Your task to perform on an android device: toggle notifications settings in the gmail app Image 0: 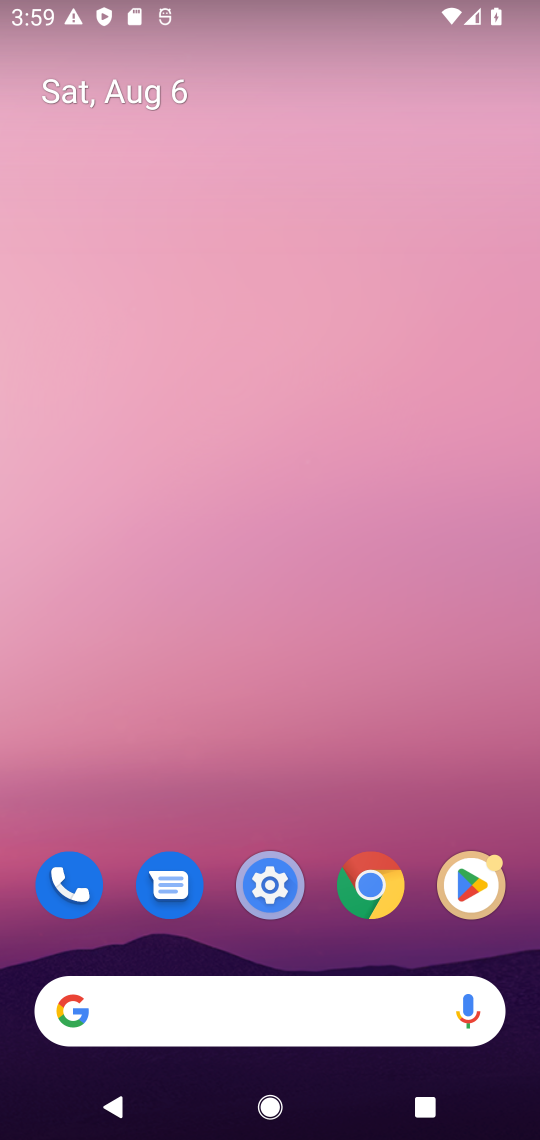
Step 0: drag from (271, 778) to (244, 318)
Your task to perform on an android device: toggle notifications settings in the gmail app Image 1: 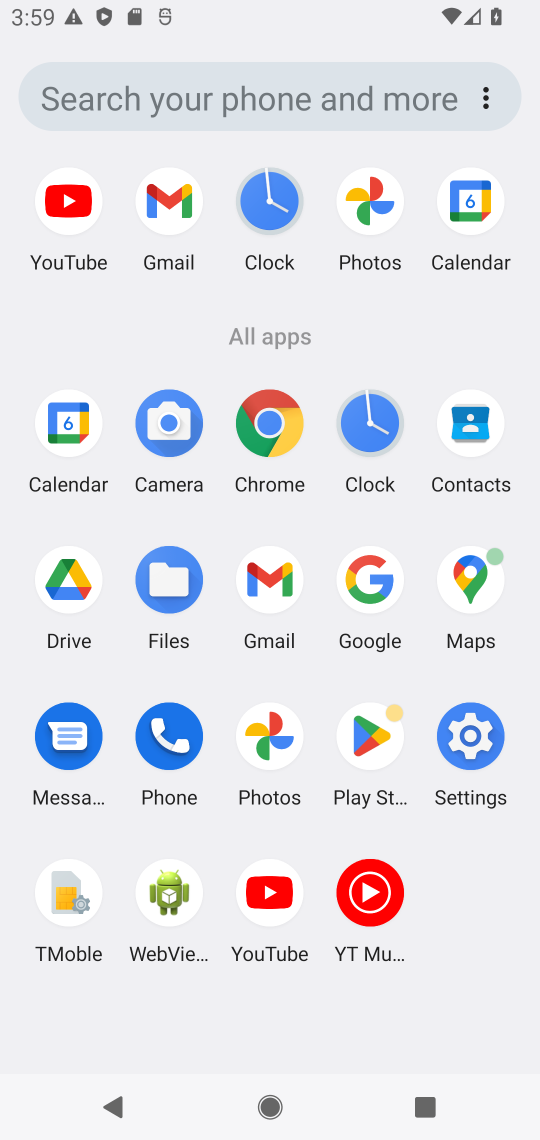
Step 1: click (257, 575)
Your task to perform on an android device: toggle notifications settings in the gmail app Image 2: 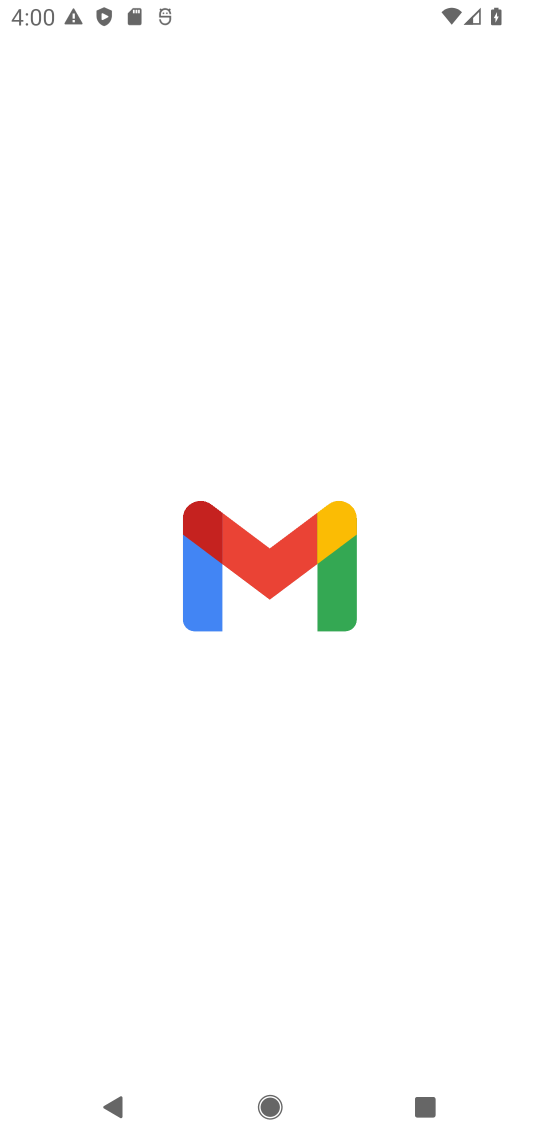
Step 2: press home button
Your task to perform on an android device: toggle notifications settings in the gmail app Image 3: 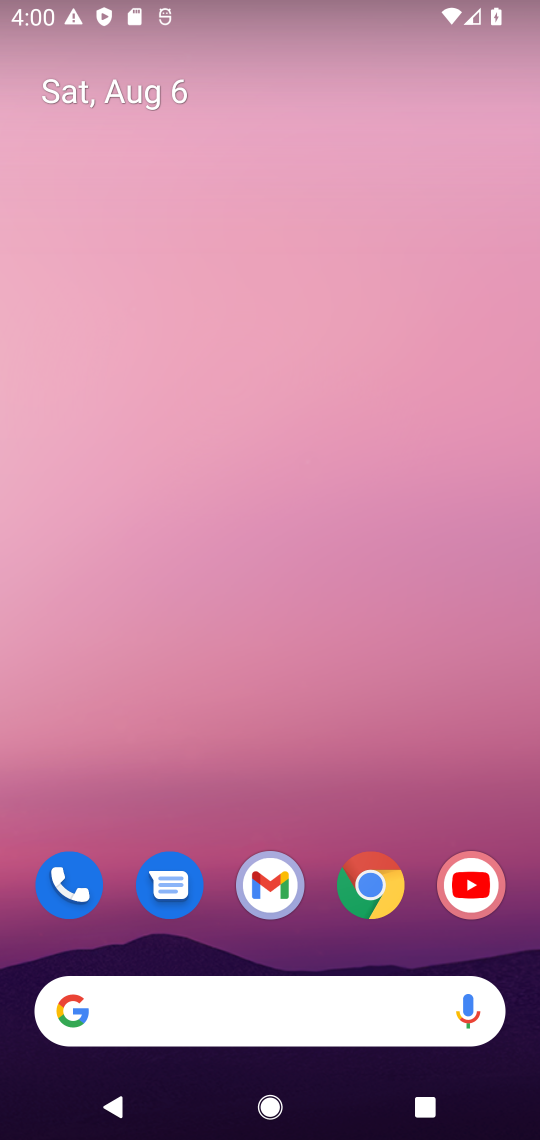
Step 3: drag from (336, 789) to (352, 311)
Your task to perform on an android device: toggle notifications settings in the gmail app Image 4: 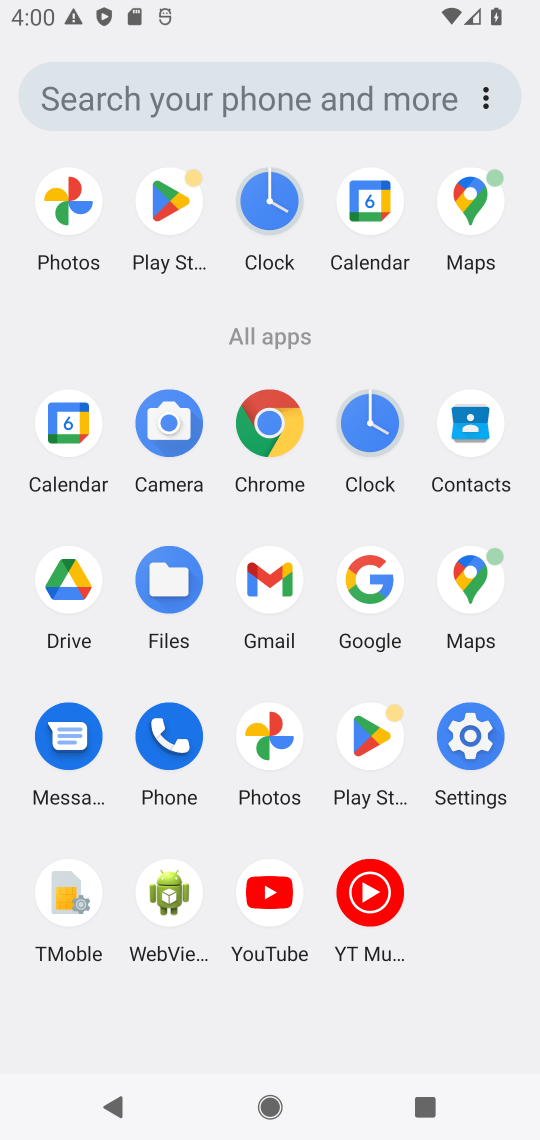
Step 4: click (266, 591)
Your task to perform on an android device: toggle notifications settings in the gmail app Image 5: 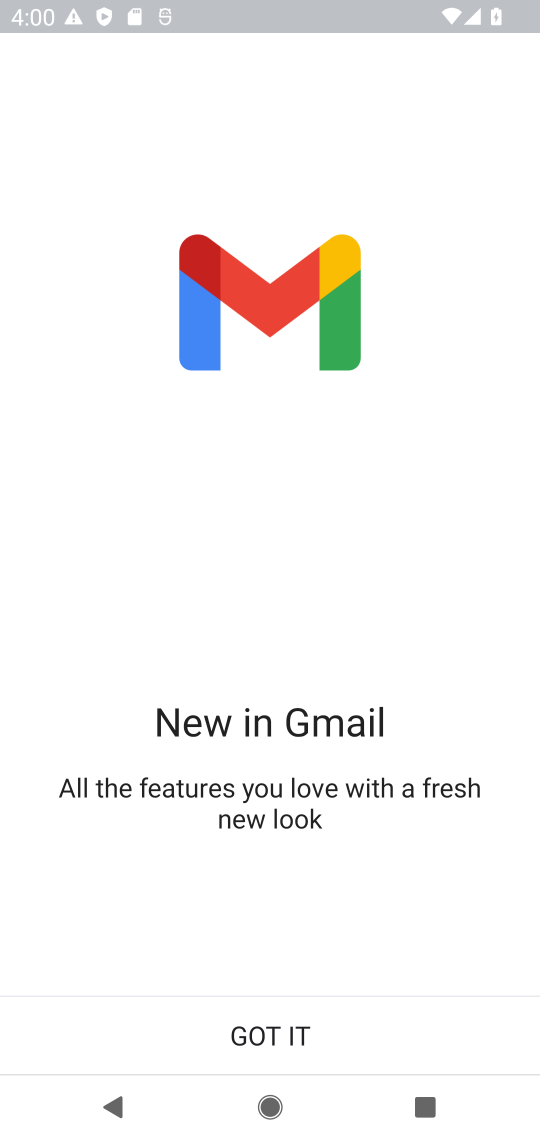
Step 5: click (286, 1035)
Your task to perform on an android device: toggle notifications settings in the gmail app Image 6: 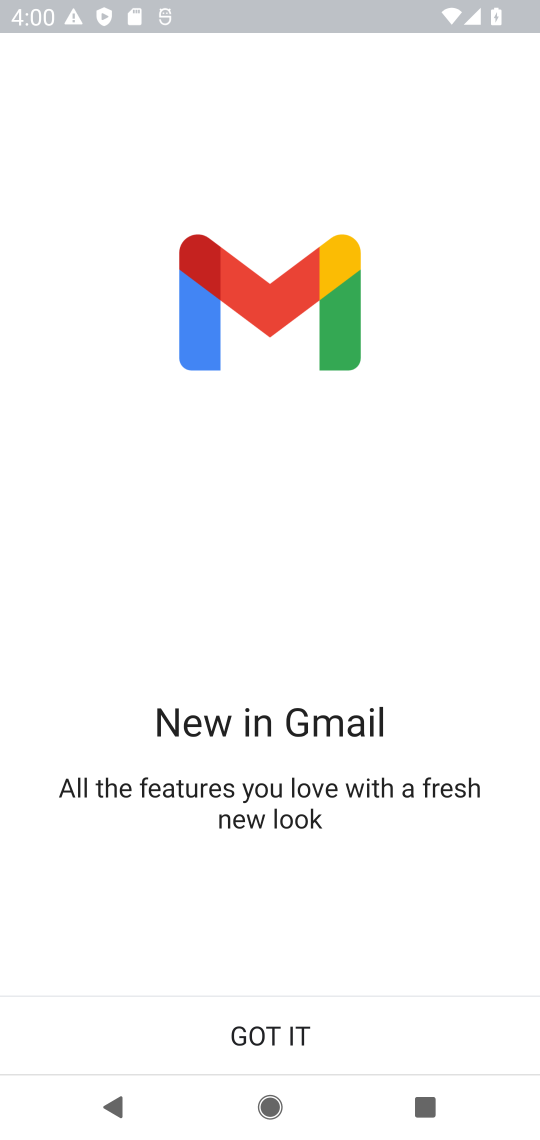
Step 6: click (286, 1035)
Your task to perform on an android device: toggle notifications settings in the gmail app Image 7: 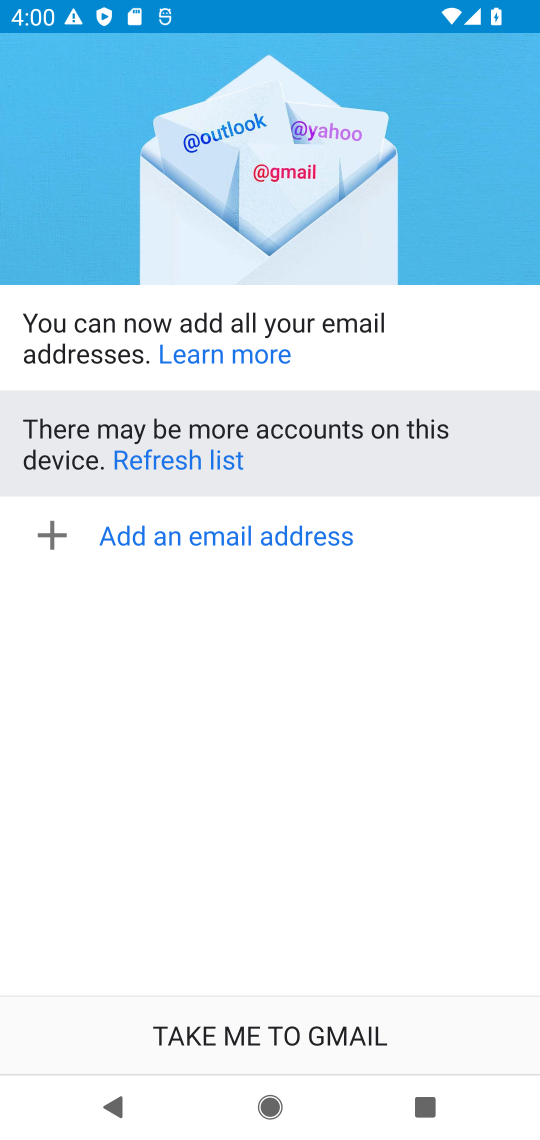
Step 7: click (285, 1035)
Your task to perform on an android device: toggle notifications settings in the gmail app Image 8: 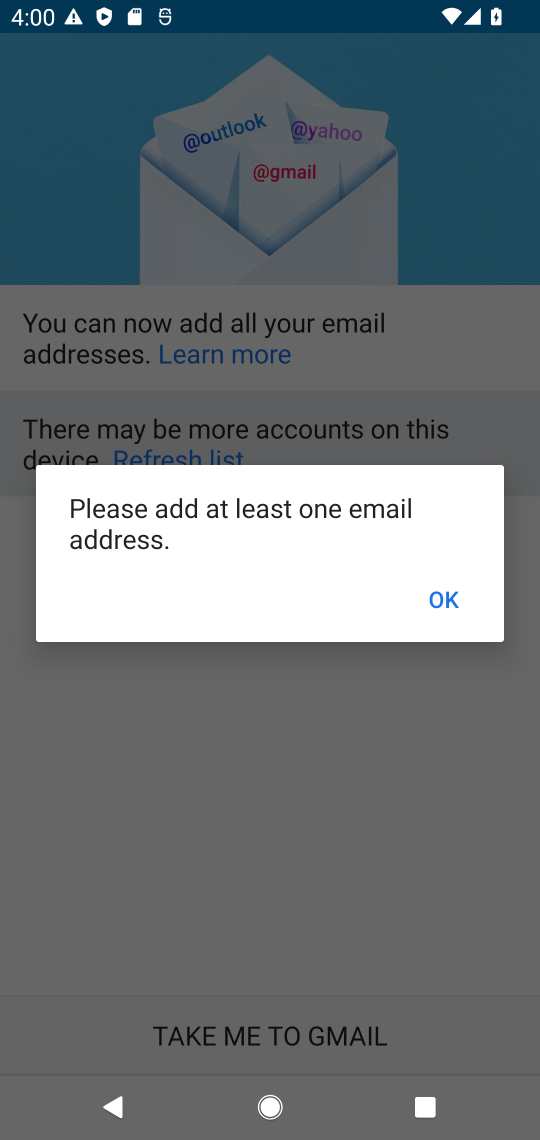
Step 8: click (422, 578)
Your task to perform on an android device: toggle notifications settings in the gmail app Image 9: 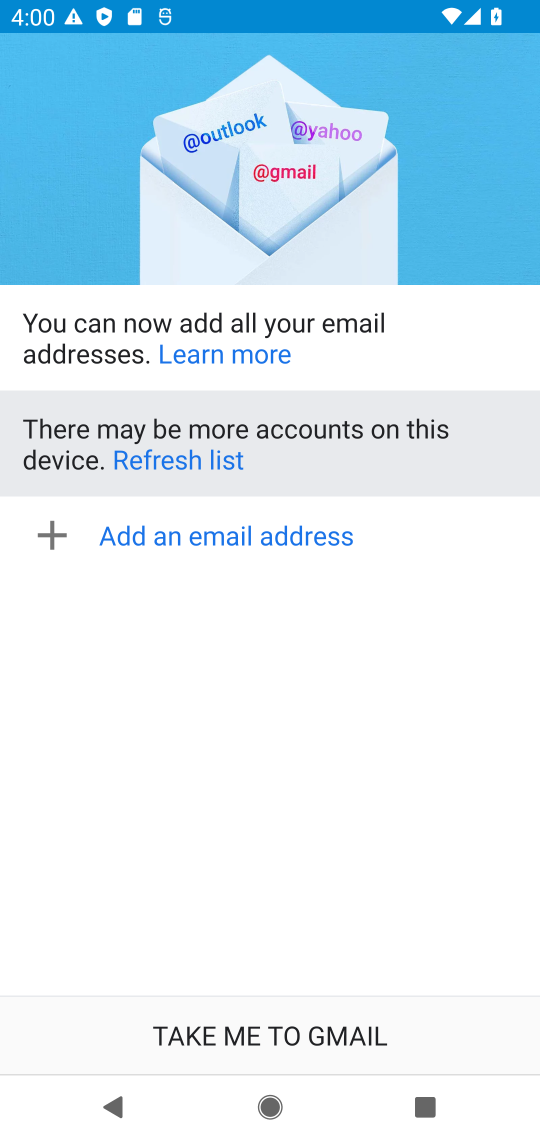
Step 9: click (327, 1058)
Your task to perform on an android device: toggle notifications settings in the gmail app Image 10: 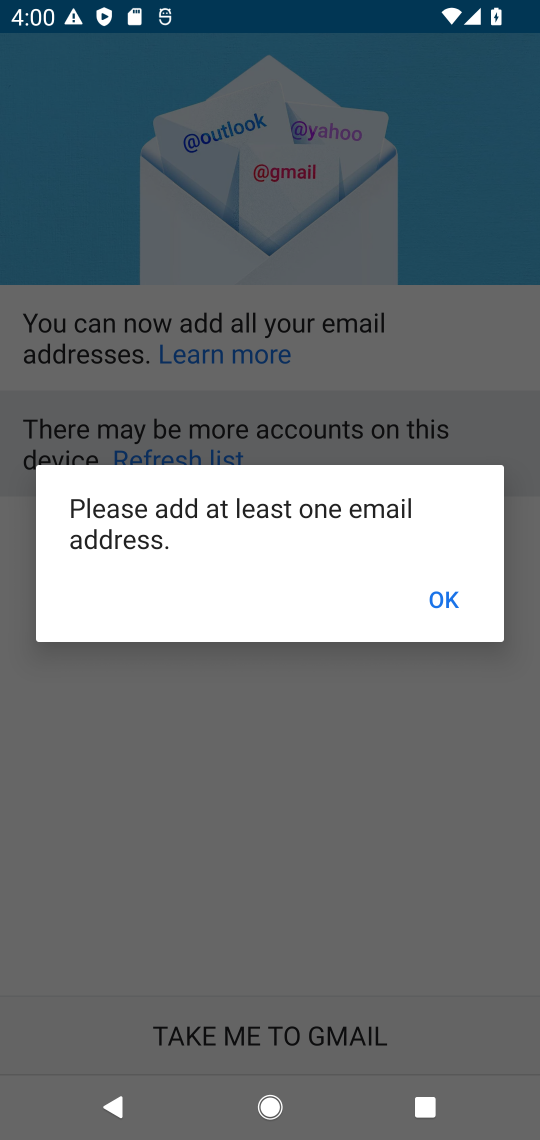
Step 10: click (459, 606)
Your task to perform on an android device: toggle notifications settings in the gmail app Image 11: 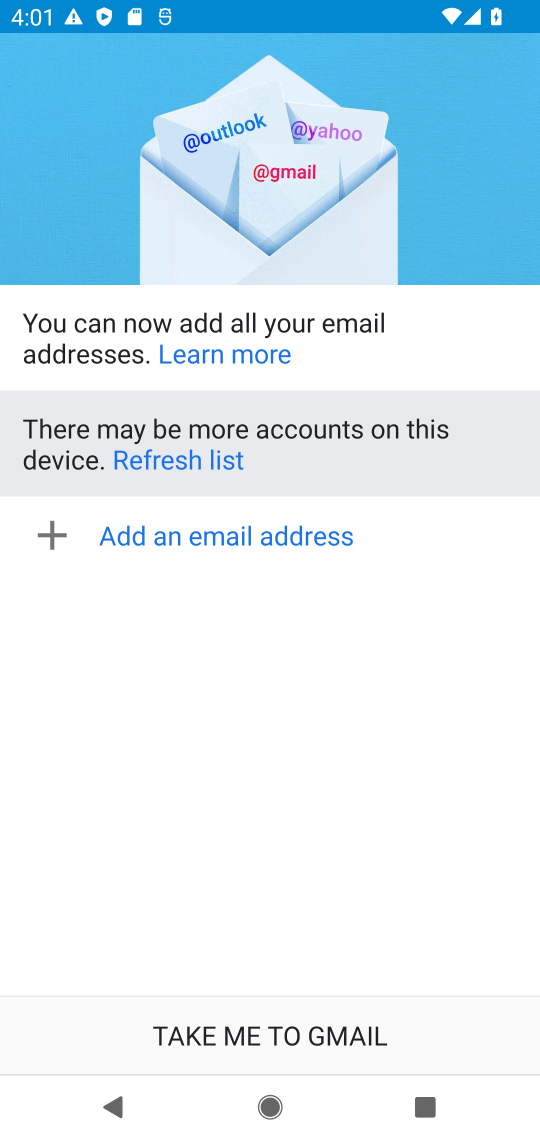
Step 11: task complete